Your task to perform on an android device: Open calendar and show me the third week of next month Image 0: 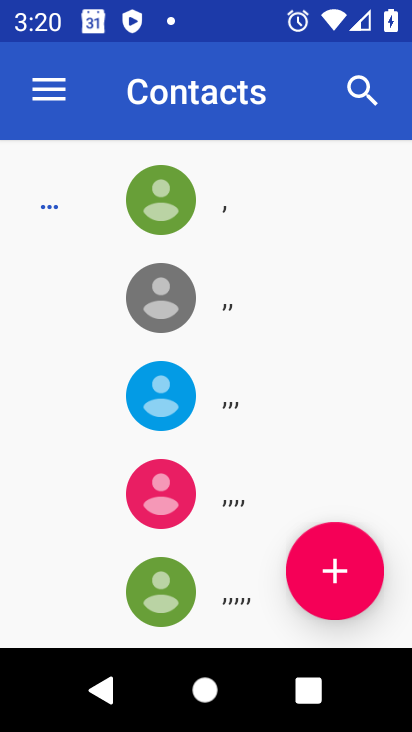
Step 0: press home button
Your task to perform on an android device: Open calendar and show me the third week of next month Image 1: 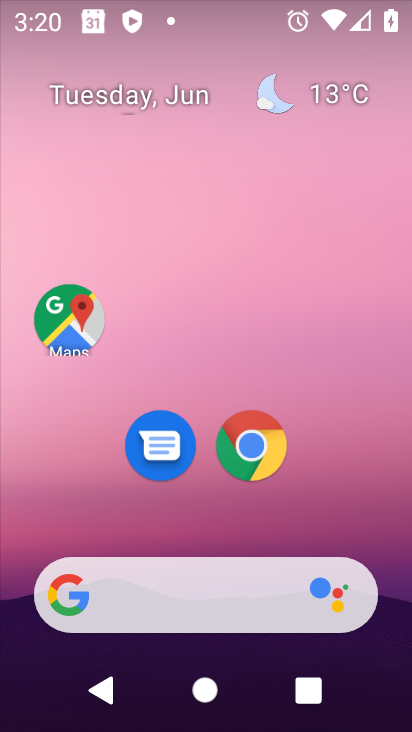
Step 1: drag from (393, 586) to (313, 55)
Your task to perform on an android device: Open calendar and show me the third week of next month Image 2: 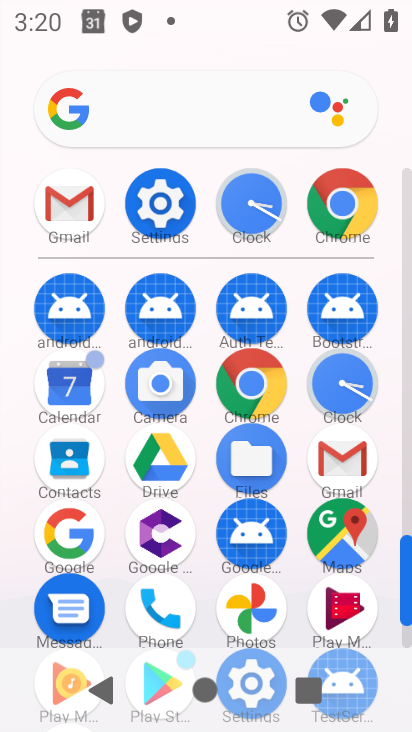
Step 2: click (71, 384)
Your task to perform on an android device: Open calendar and show me the third week of next month Image 3: 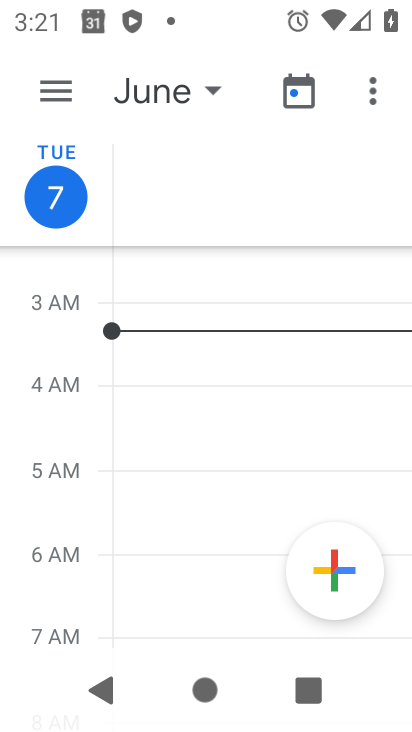
Step 3: click (62, 85)
Your task to perform on an android device: Open calendar and show me the third week of next month Image 4: 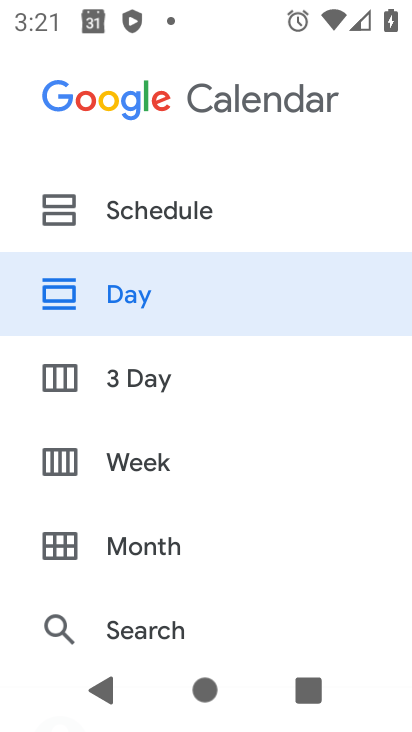
Step 4: click (151, 462)
Your task to perform on an android device: Open calendar and show me the third week of next month Image 5: 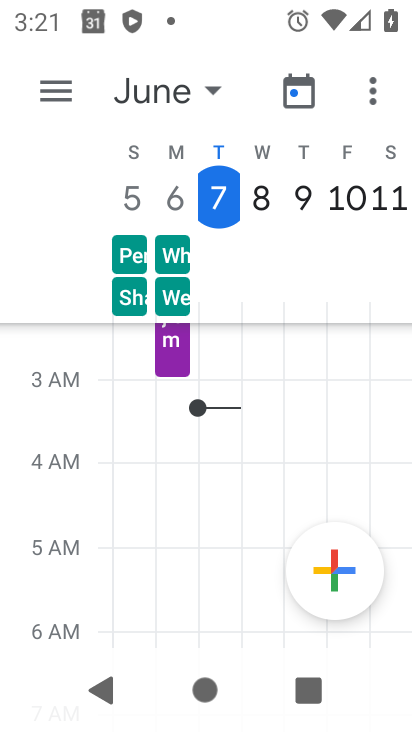
Step 5: click (208, 88)
Your task to perform on an android device: Open calendar and show me the third week of next month Image 6: 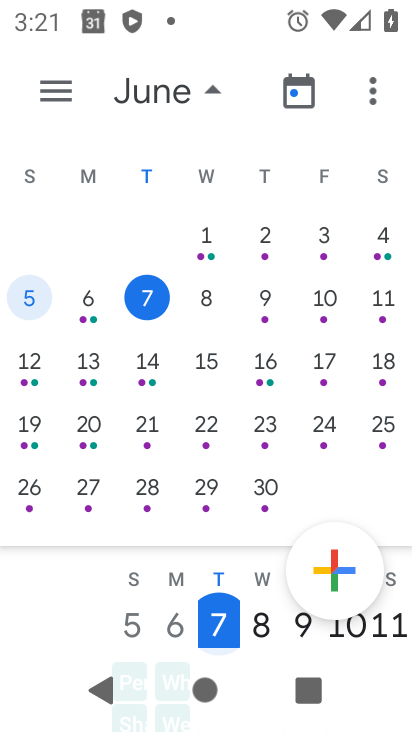
Step 6: drag from (378, 345) to (44, 231)
Your task to perform on an android device: Open calendar and show me the third week of next month Image 7: 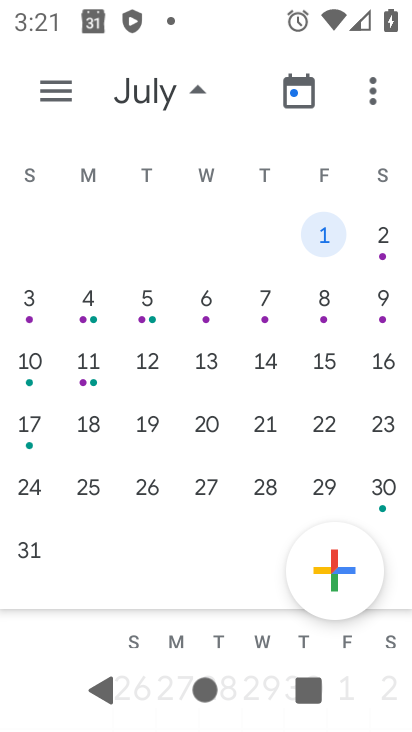
Step 7: click (36, 425)
Your task to perform on an android device: Open calendar and show me the third week of next month Image 8: 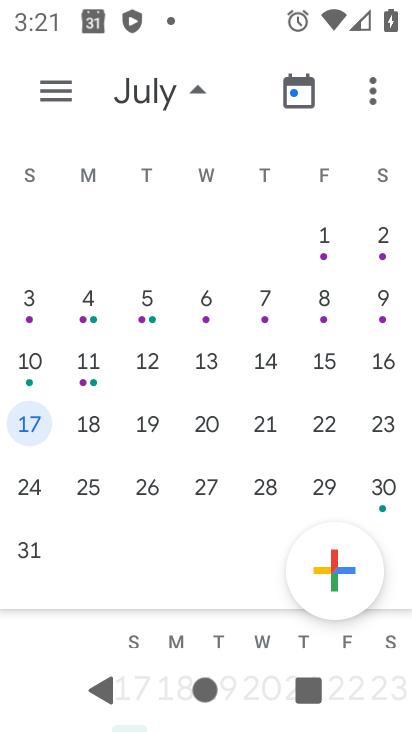
Step 8: task complete